Your task to perform on an android device: turn off airplane mode Image 0: 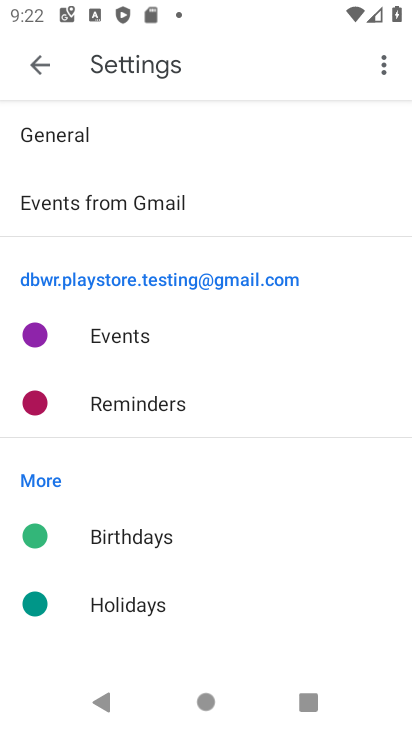
Step 0: press home button
Your task to perform on an android device: turn off airplane mode Image 1: 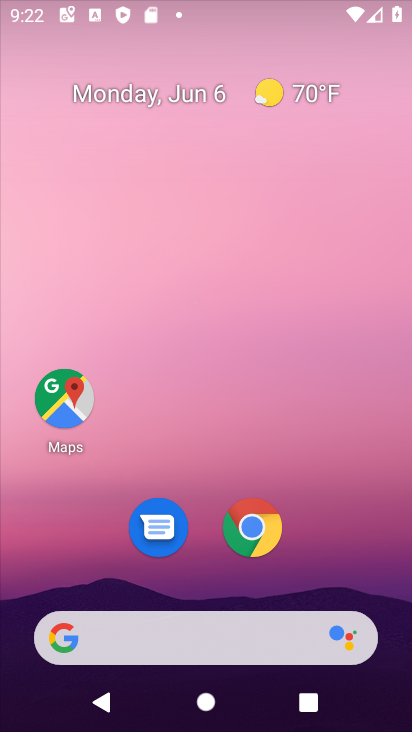
Step 1: drag from (184, 599) to (262, 282)
Your task to perform on an android device: turn off airplane mode Image 2: 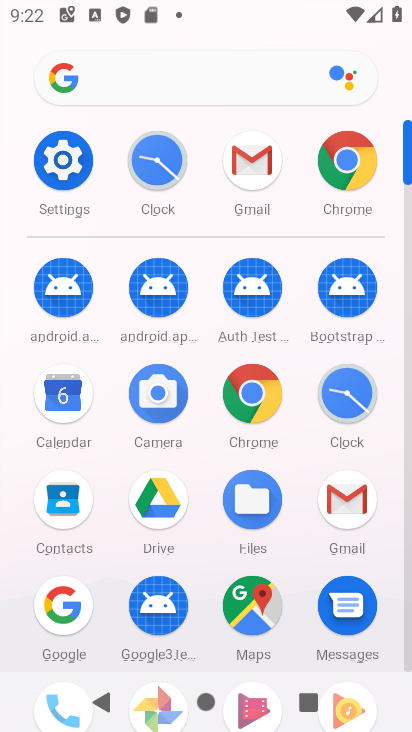
Step 2: click (73, 177)
Your task to perform on an android device: turn off airplane mode Image 3: 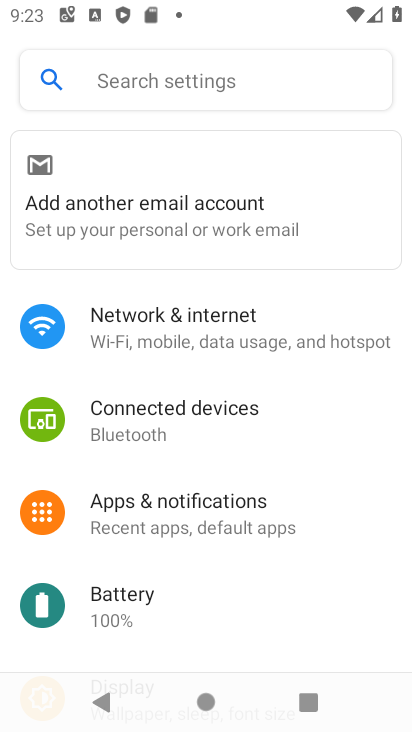
Step 3: click (217, 345)
Your task to perform on an android device: turn off airplane mode Image 4: 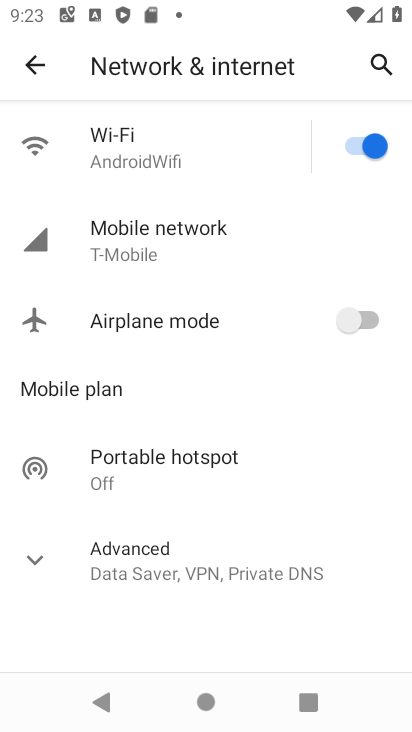
Step 4: task complete